Your task to perform on an android device: Go to accessibility settings Image 0: 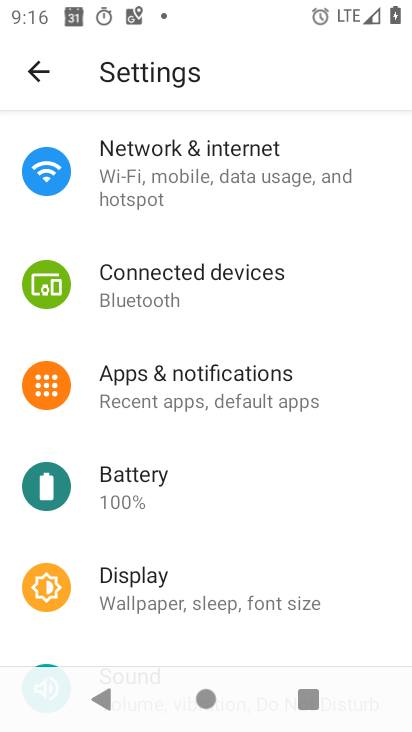
Step 0: drag from (2, 646) to (321, 143)
Your task to perform on an android device: Go to accessibility settings Image 1: 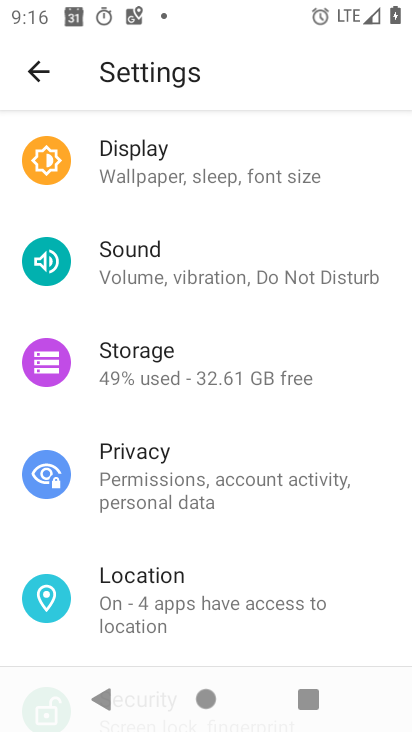
Step 1: drag from (30, 536) to (368, 128)
Your task to perform on an android device: Go to accessibility settings Image 2: 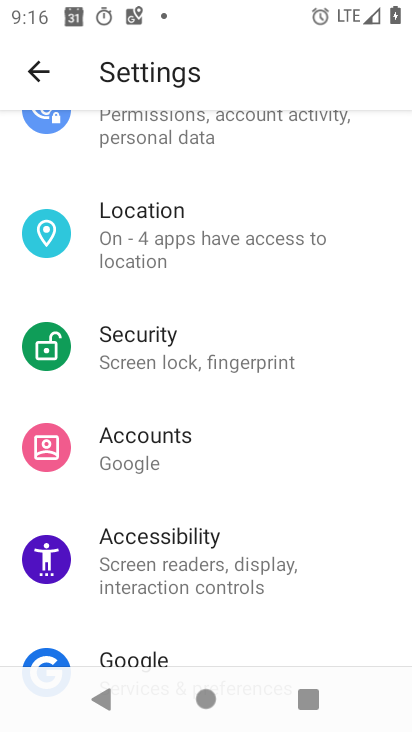
Step 2: drag from (45, 442) to (159, 281)
Your task to perform on an android device: Go to accessibility settings Image 3: 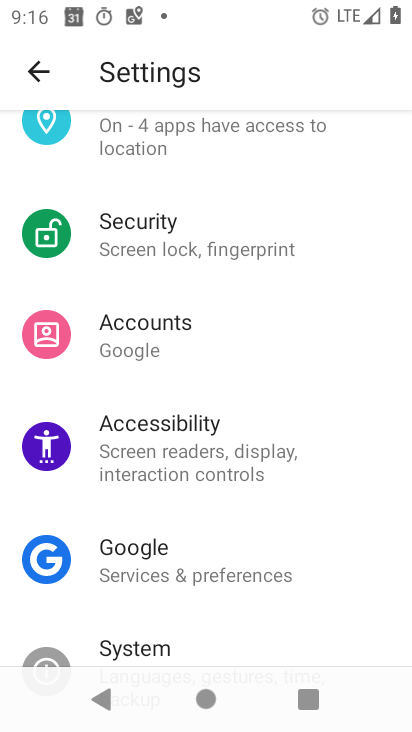
Step 3: click (145, 557)
Your task to perform on an android device: Go to accessibility settings Image 4: 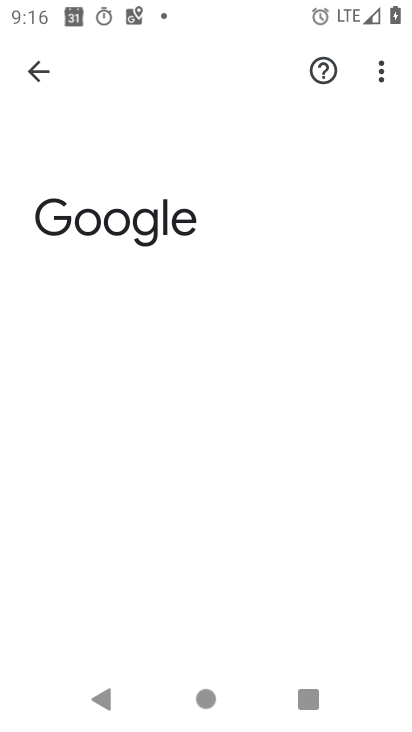
Step 4: task complete